Your task to perform on an android device: turn vacation reply on in the gmail app Image 0: 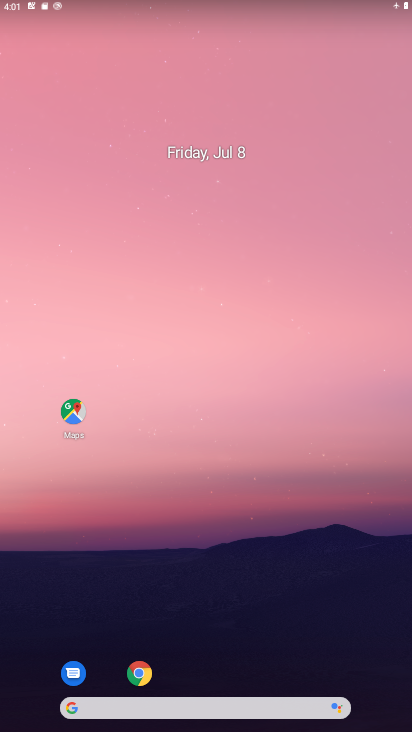
Step 0: drag from (340, 689) to (241, 0)
Your task to perform on an android device: turn vacation reply on in the gmail app Image 1: 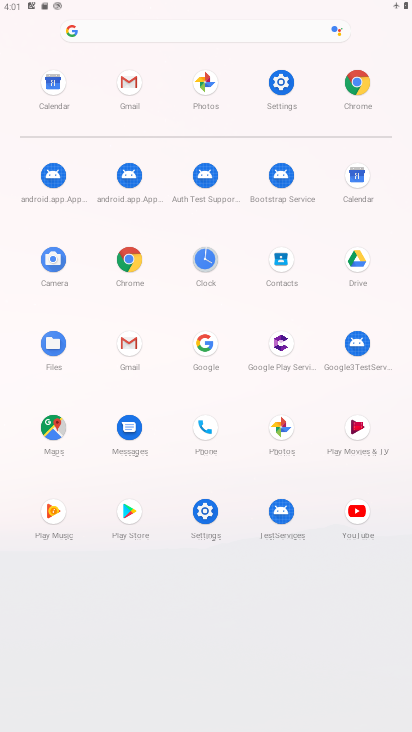
Step 1: click (130, 356)
Your task to perform on an android device: turn vacation reply on in the gmail app Image 2: 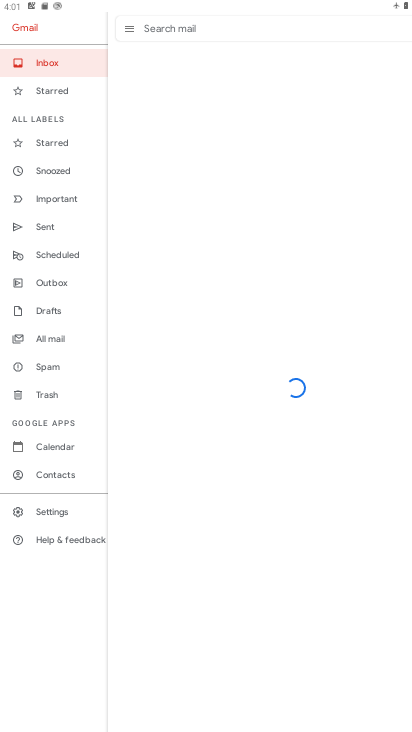
Step 2: click (56, 506)
Your task to perform on an android device: turn vacation reply on in the gmail app Image 3: 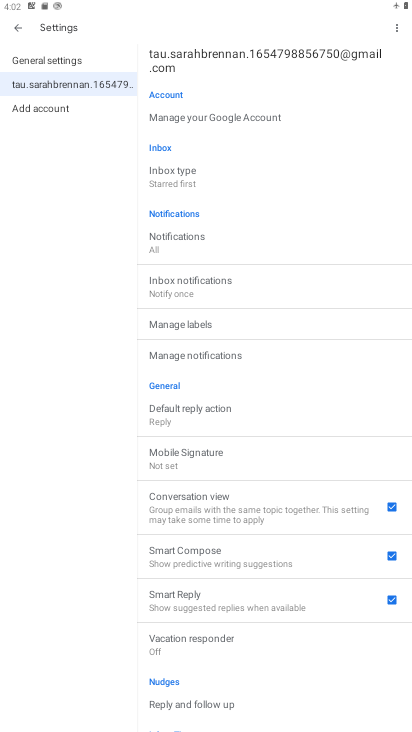
Step 3: click (166, 644)
Your task to perform on an android device: turn vacation reply on in the gmail app Image 4: 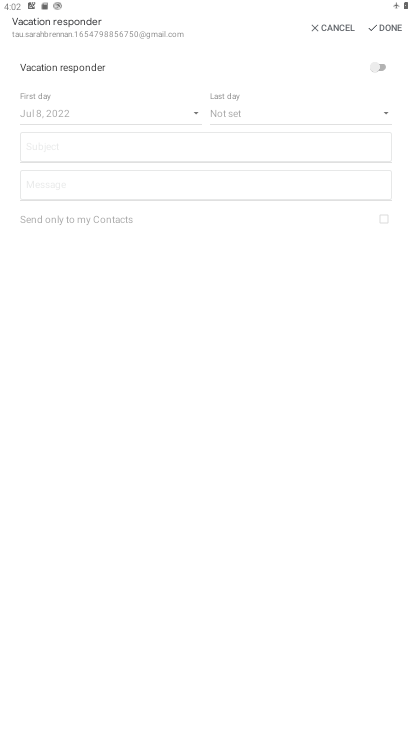
Step 4: click (393, 28)
Your task to perform on an android device: turn vacation reply on in the gmail app Image 5: 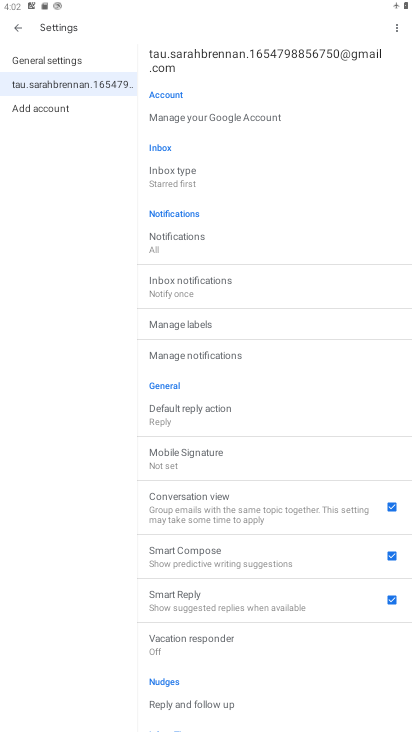
Step 5: click (178, 642)
Your task to perform on an android device: turn vacation reply on in the gmail app Image 6: 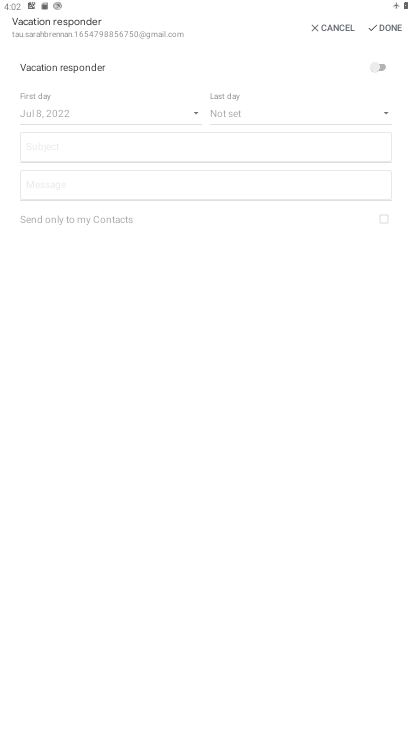
Step 6: click (375, 62)
Your task to perform on an android device: turn vacation reply on in the gmail app Image 7: 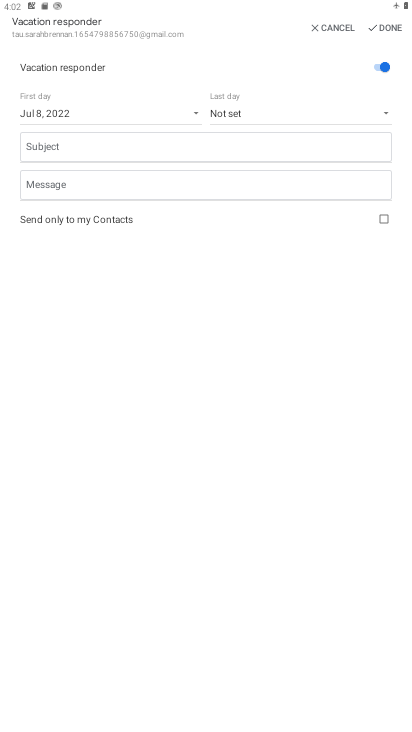
Step 7: click (385, 30)
Your task to perform on an android device: turn vacation reply on in the gmail app Image 8: 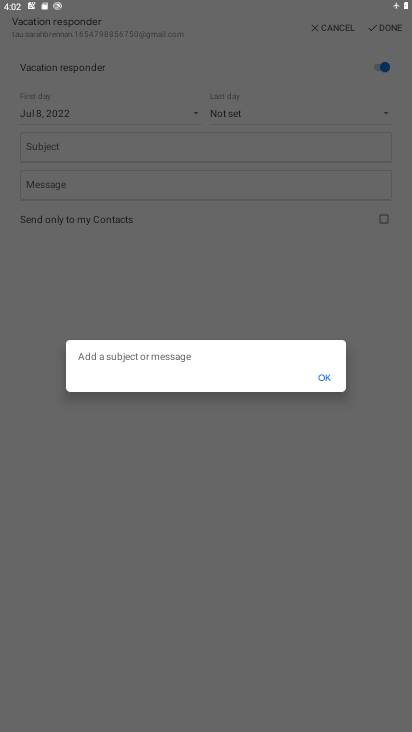
Step 8: click (325, 376)
Your task to perform on an android device: turn vacation reply on in the gmail app Image 9: 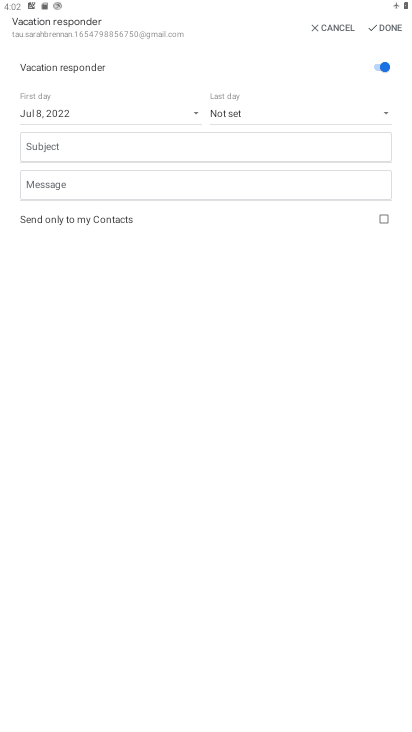
Step 9: click (384, 26)
Your task to perform on an android device: turn vacation reply on in the gmail app Image 10: 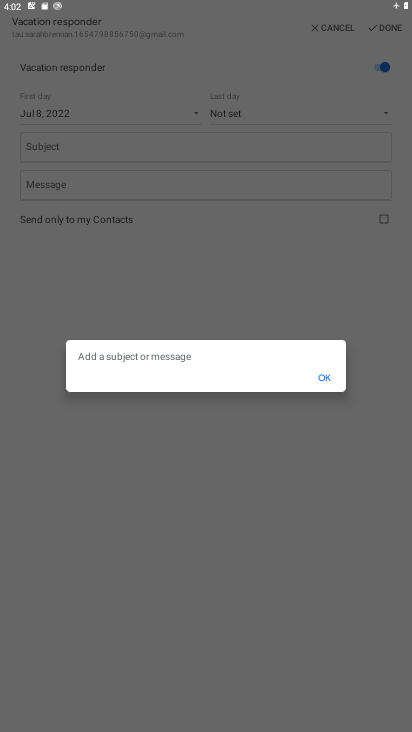
Step 10: task complete